Your task to perform on an android device: change notification settings in the gmail app Image 0: 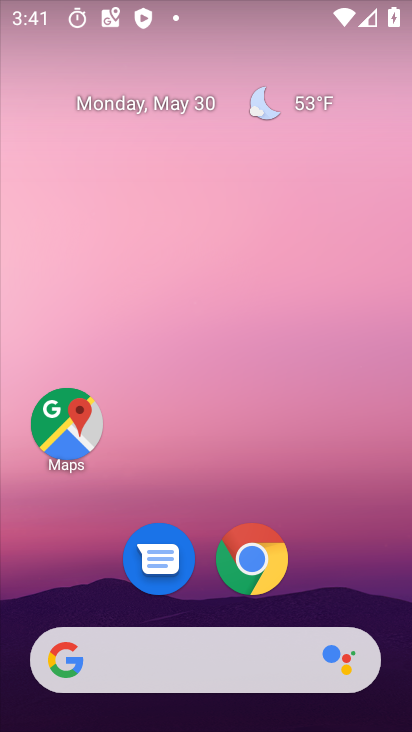
Step 0: drag from (233, 720) to (231, 77)
Your task to perform on an android device: change notification settings in the gmail app Image 1: 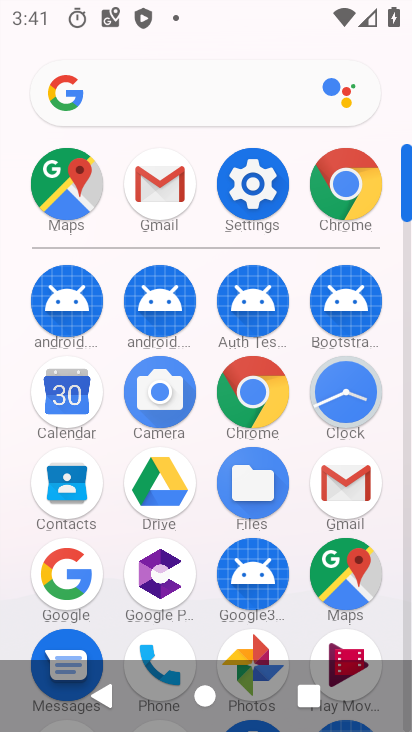
Step 1: click (336, 484)
Your task to perform on an android device: change notification settings in the gmail app Image 2: 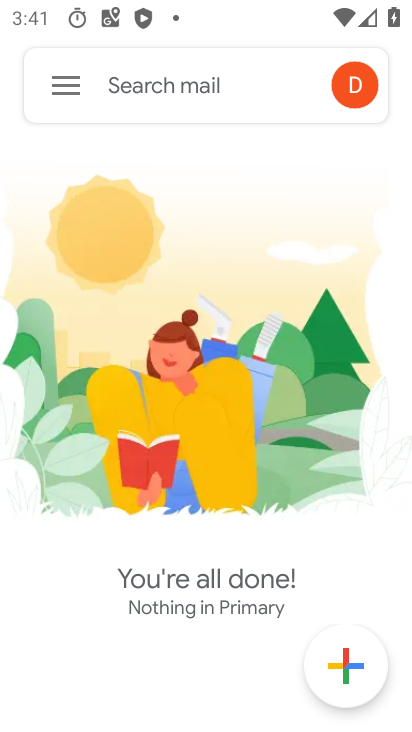
Step 2: click (53, 84)
Your task to perform on an android device: change notification settings in the gmail app Image 3: 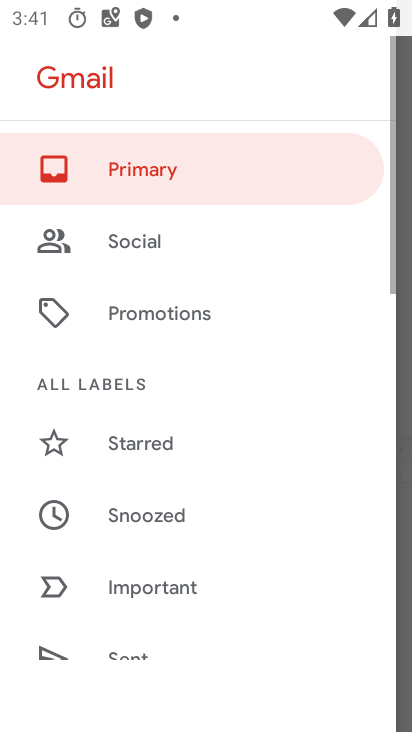
Step 3: drag from (181, 638) to (180, 194)
Your task to perform on an android device: change notification settings in the gmail app Image 4: 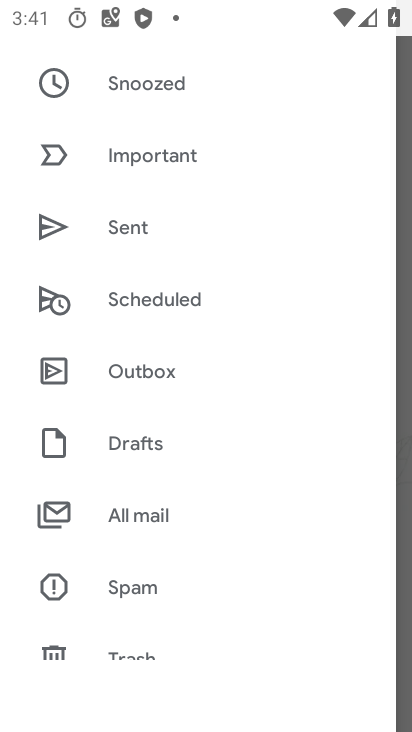
Step 4: drag from (187, 617) to (184, 368)
Your task to perform on an android device: change notification settings in the gmail app Image 5: 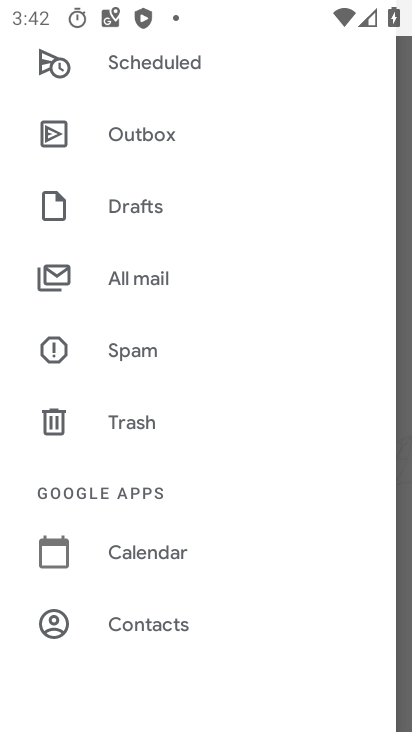
Step 5: drag from (151, 599) to (153, 159)
Your task to perform on an android device: change notification settings in the gmail app Image 6: 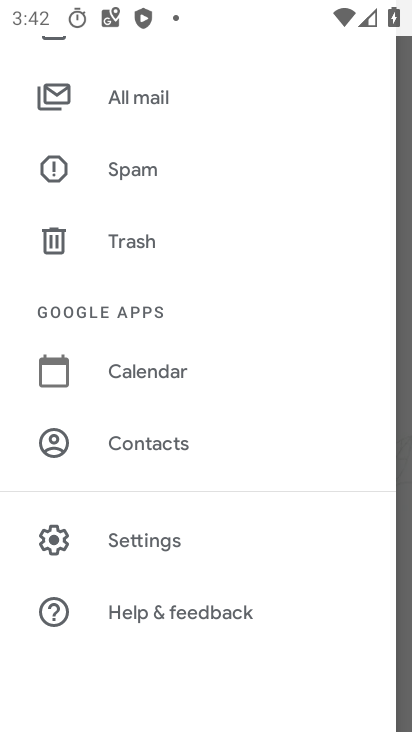
Step 6: click (166, 541)
Your task to perform on an android device: change notification settings in the gmail app Image 7: 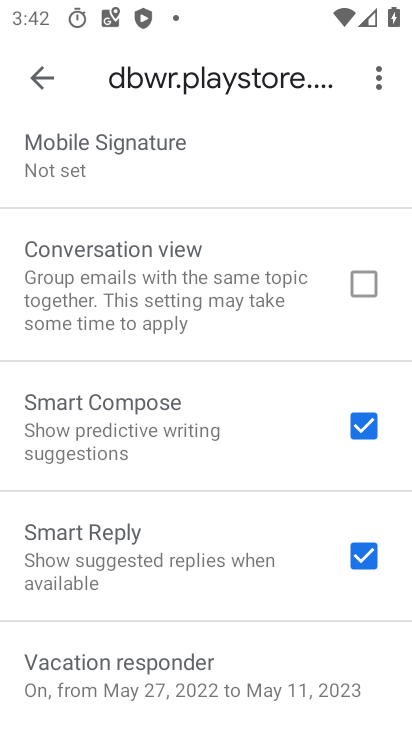
Step 7: drag from (165, 659) to (171, 155)
Your task to perform on an android device: change notification settings in the gmail app Image 8: 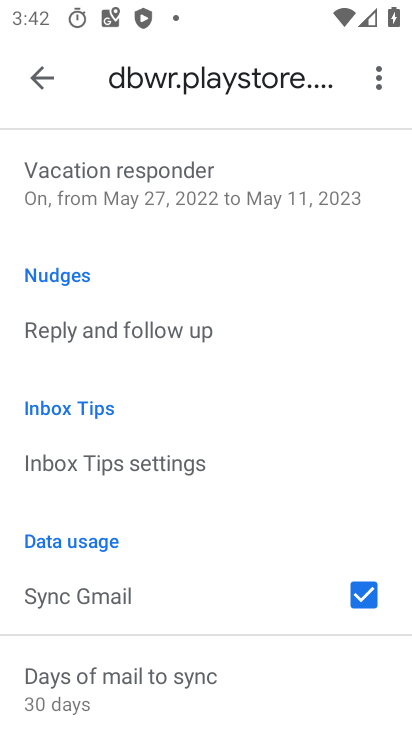
Step 8: drag from (180, 682) to (174, 258)
Your task to perform on an android device: change notification settings in the gmail app Image 9: 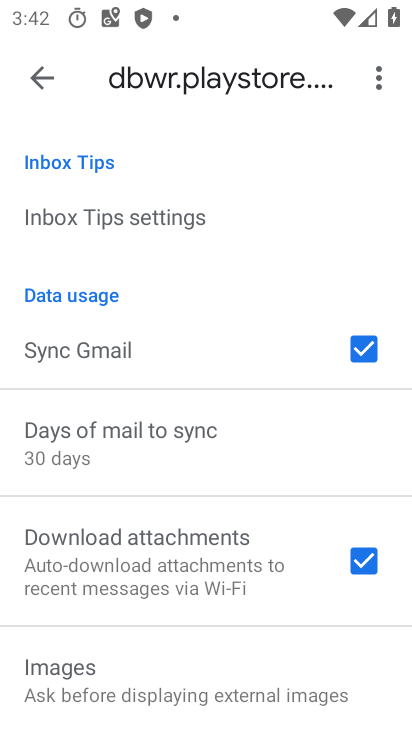
Step 9: drag from (180, 695) to (179, 392)
Your task to perform on an android device: change notification settings in the gmail app Image 10: 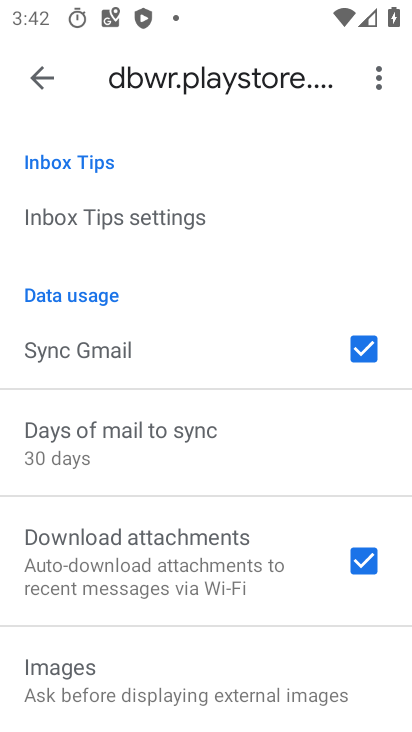
Step 10: drag from (153, 685) to (159, 456)
Your task to perform on an android device: change notification settings in the gmail app Image 11: 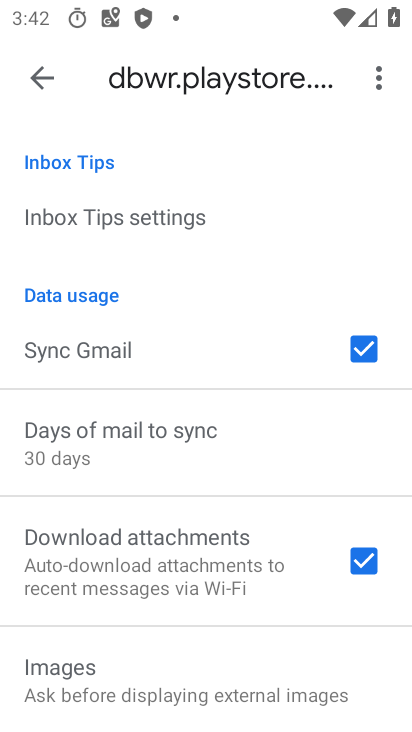
Step 11: drag from (174, 692) to (178, 385)
Your task to perform on an android device: change notification settings in the gmail app Image 12: 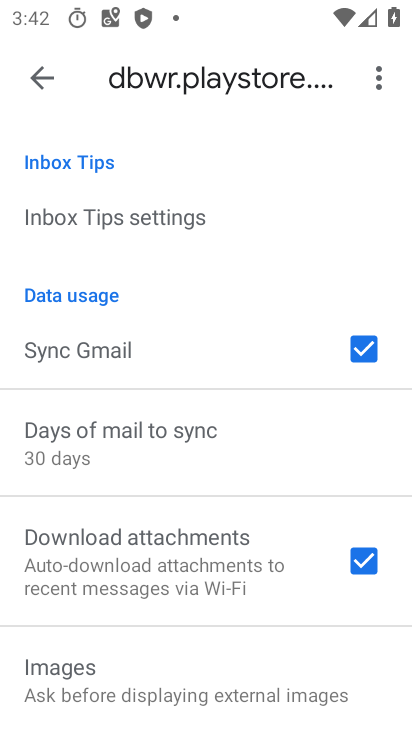
Step 12: drag from (171, 154) to (189, 507)
Your task to perform on an android device: change notification settings in the gmail app Image 13: 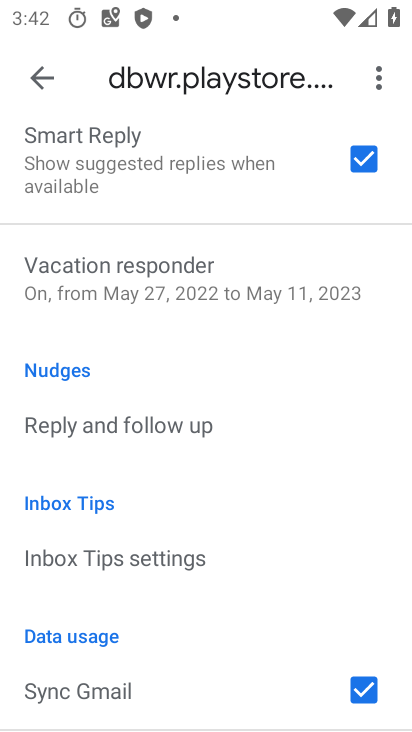
Step 13: drag from (198, 162) to (211, 602)
Your task to perform on an android device: change notification settings in the gmail app Image 14: 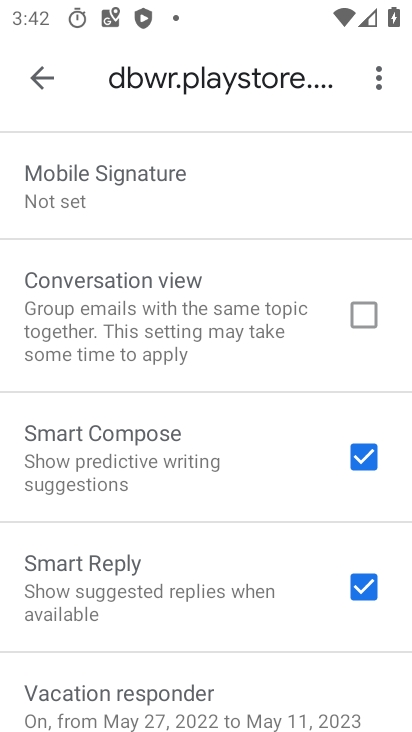
Step 14: drag from (190, 179) to (199, 485)
Your task to perform on an android device: change notification settings in the gmail app Image 15: 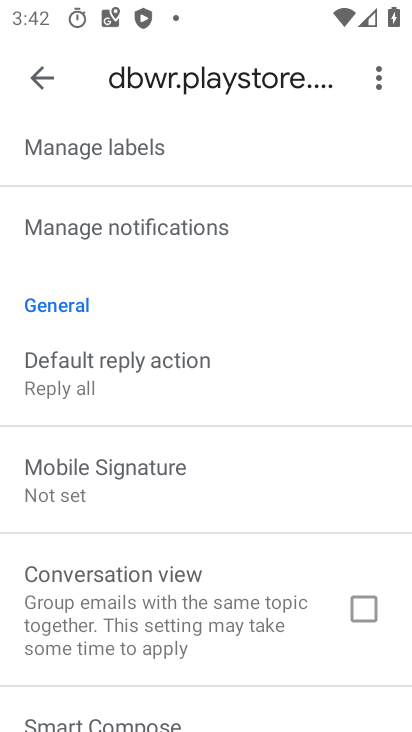
Step 15: drag from (179, 152) to (204, 367)
Your task to perform on an android device: change notification settings in the gmail app Image 16: 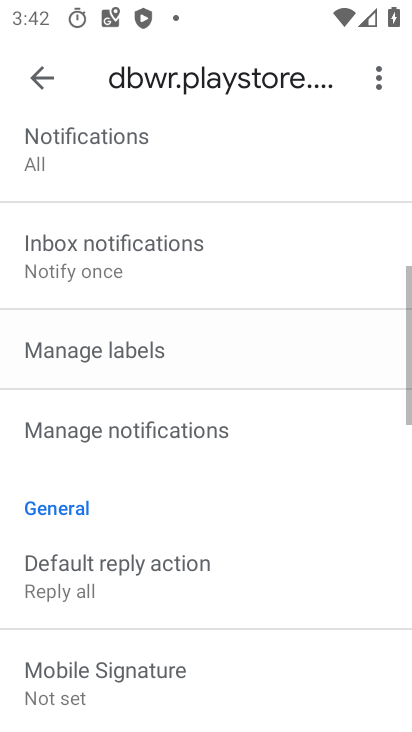
Step 16: click (206, 586)
Your task to perform on an android device: change notification settings in the gmail app Image 17: 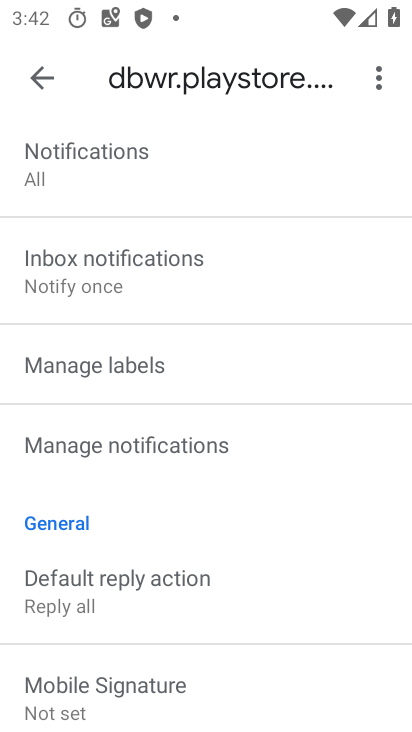
Step 17: drag from (136, 201) to (150, 538)
Your task to perform on an android device: change notification settings in the gmail app Image 18: 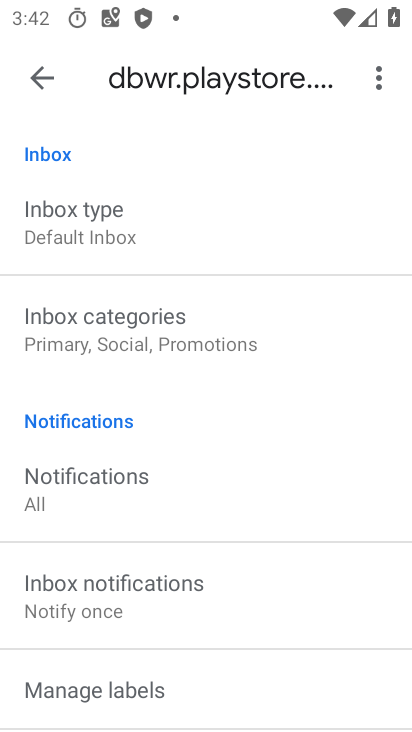
Step 18: click (106, 472)
Your task to perform on an android device: change notification settings in the gmail app Image 19: 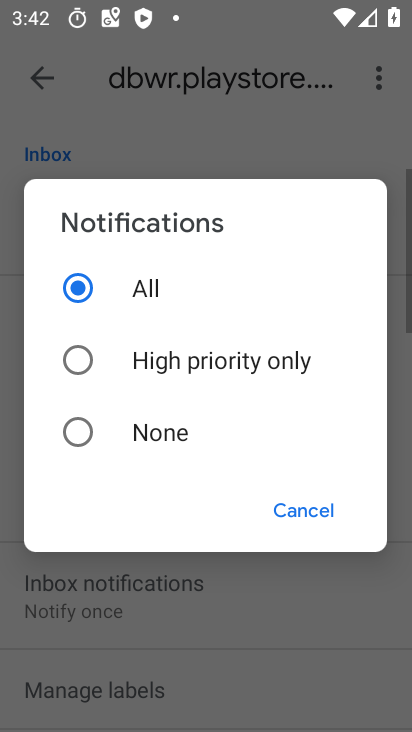
Step 19: click (79, 357)
Your task to perform on an android device: change notification settings in the gmail app Image 20: 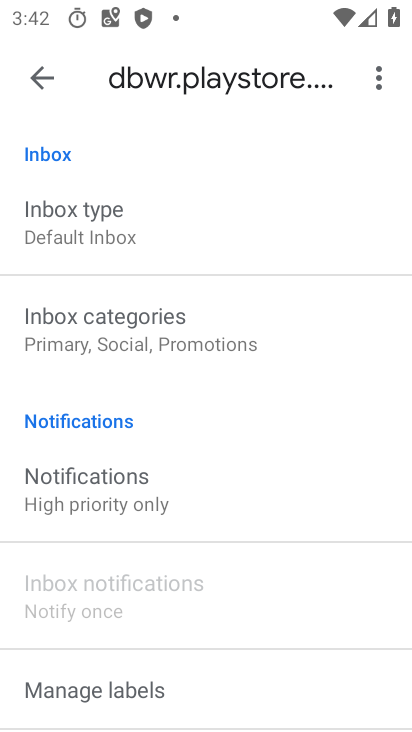
Step 20: task complete